Your task to perform on an android device: find which apps use the phone's location Image 0: 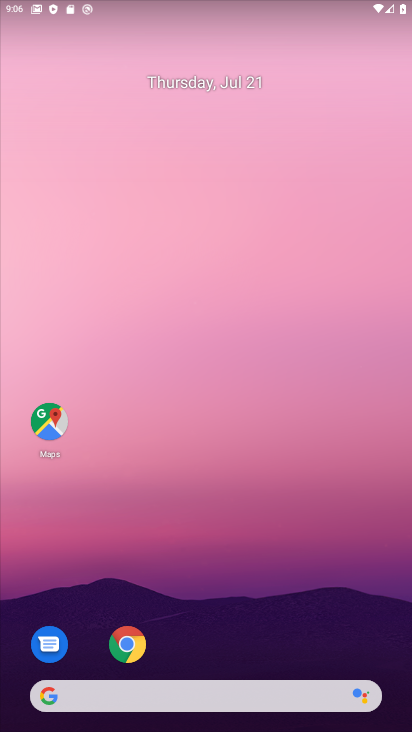
Step 0: drag from (219, 678) to (193, 73)
Your task to perform on an android device: find which apps use the phone's location Image 1: 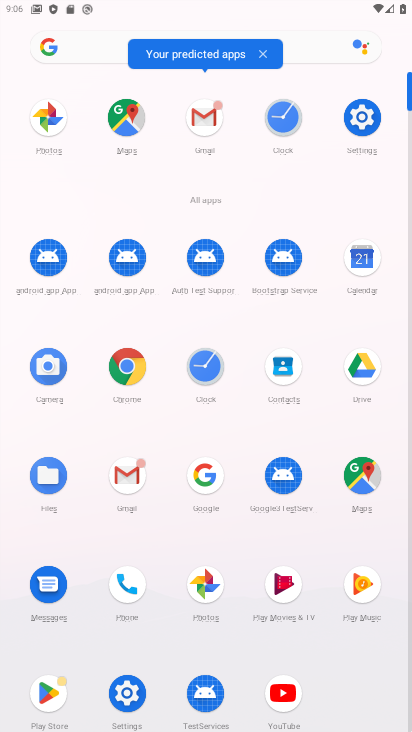
Step 1: click (124, 695)
Your task to perform on an android device: find which apps use the phone's location Image 2: 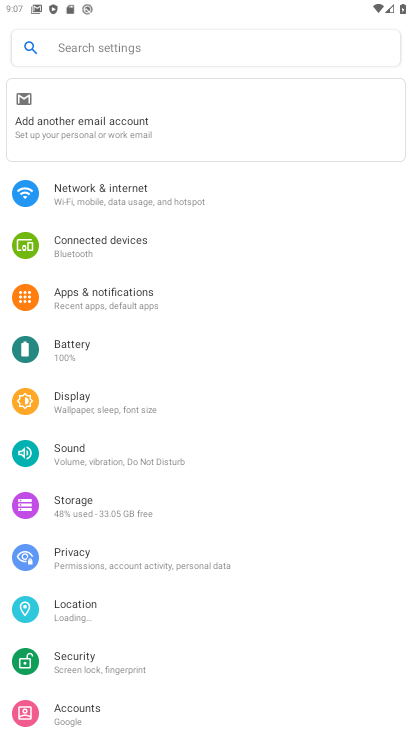
Step 2: click (90, 613)
Your task to perform on an android device: find which apps use the phone's location Image 3: 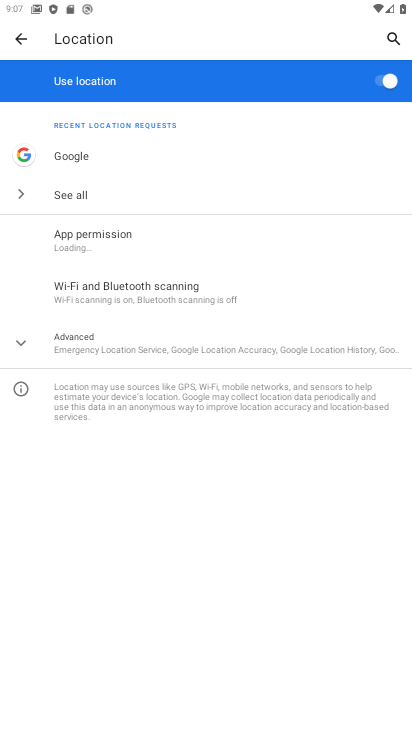
Step 3: click (100, 239)
Your task to perform on an android device: find which apps use the phone's location Image 4: 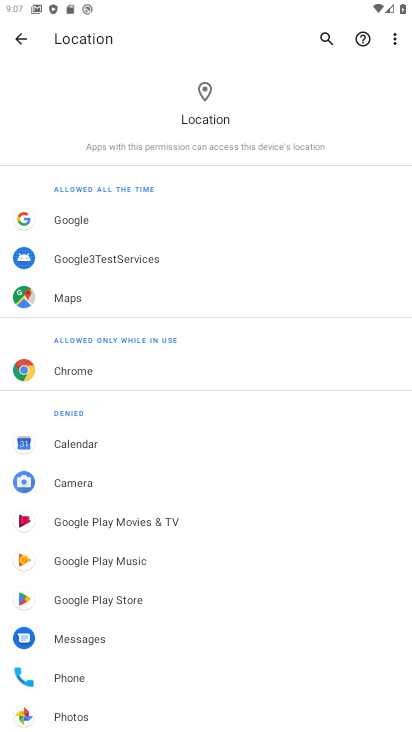
Step 4: task complete